Your task to perform on an android device: Open Maps and search for coffee Image 0: 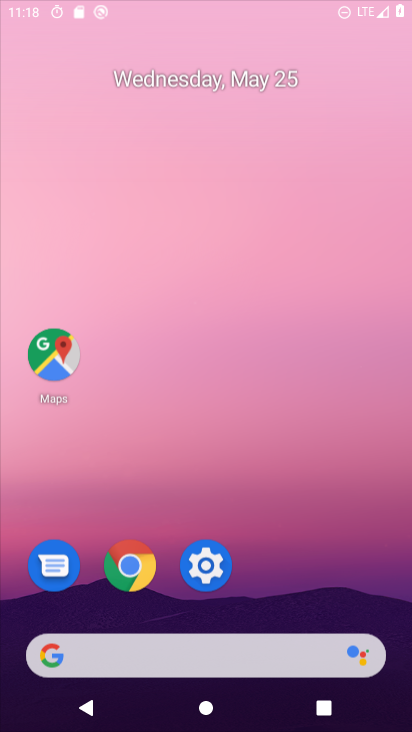
Step 0: drag from (305, 653) to (147, 166)
Your task to perform on an android device: Open Maps and search for coffee Image 1: 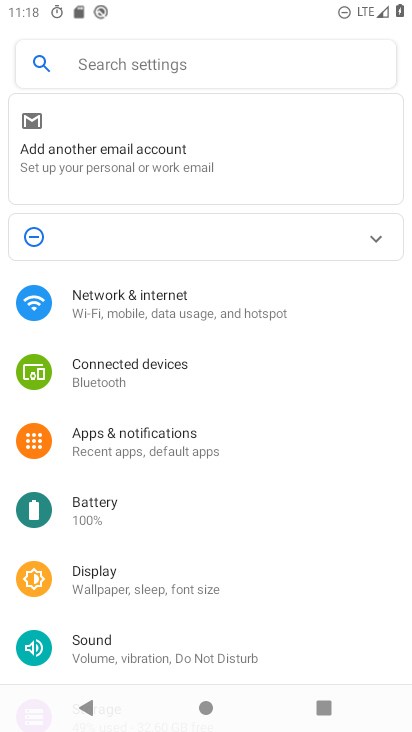
Step 1: press back button
Your task to perform on an android device: Open Maps and search for coffee Image 2: 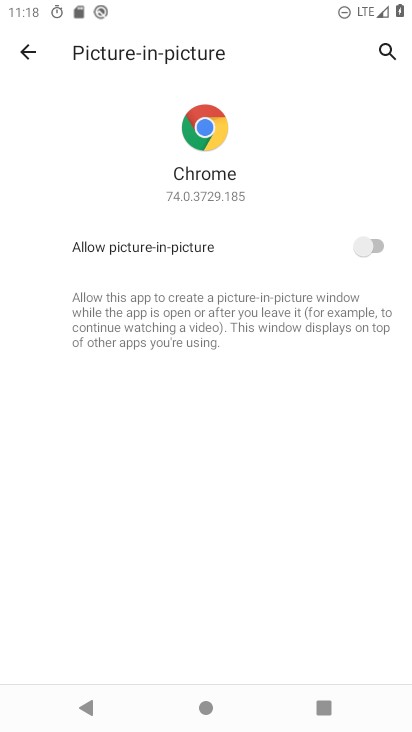
Step 2: click (30, 56)
Your task to perform on an android device: Open Maps and search for coffee Image 3: 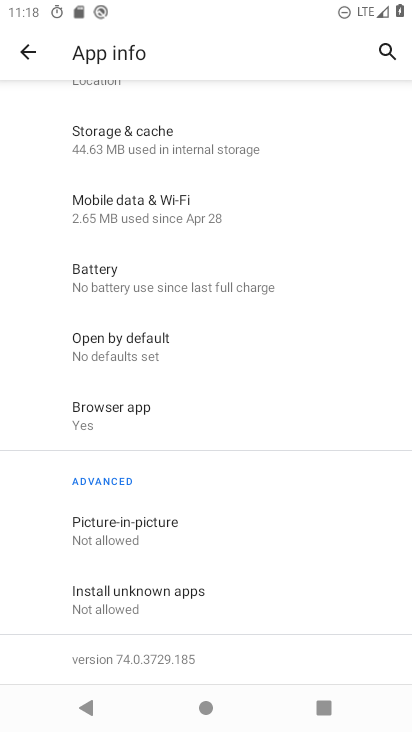
Step 3: drag from (256, 514) to (219, 149)
Your task to perform on an android device: Open Maps and search for coffee Image 4: 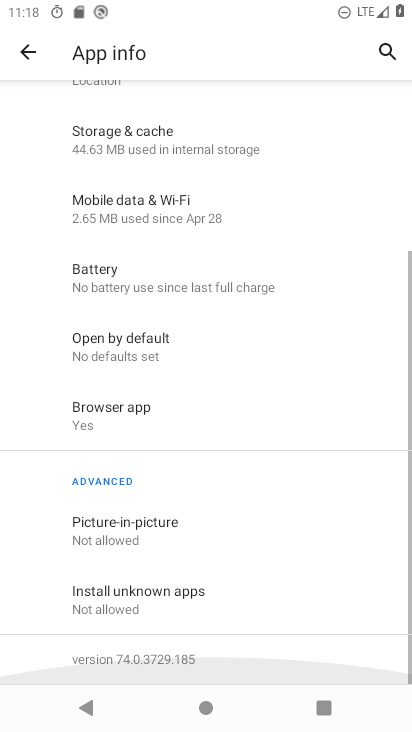
Step 4: drag from (291, 466) to (291, 186)
Your task to perform on an android device: Open Maps and search for coffee Image 5: 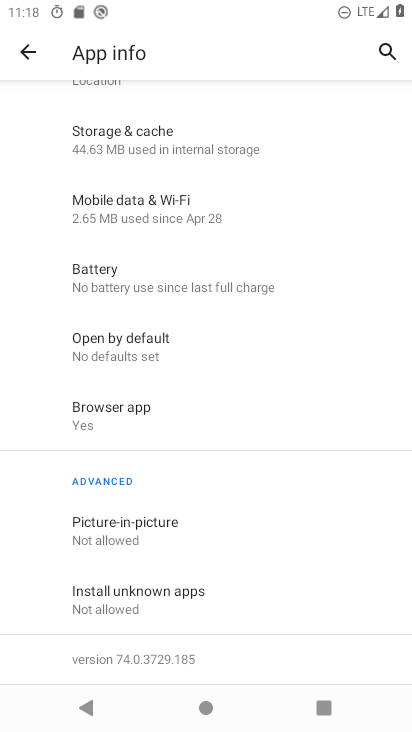
Step 5: press back button
Your task to perform on an android device: Open Maps and search for coffee Image 6: 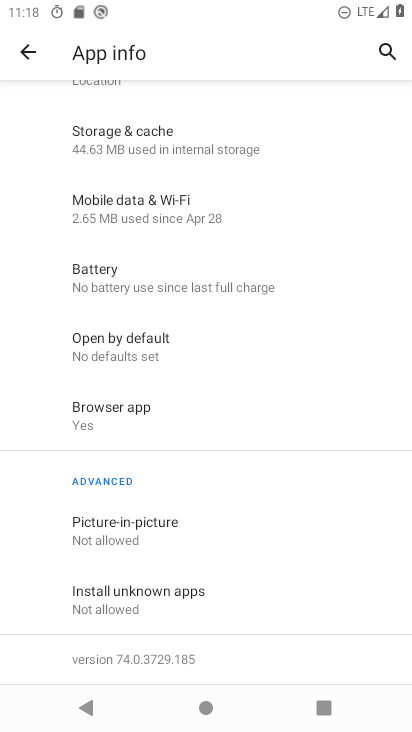
Step 6: press back button
Your task to perform on an android device: Open Maps and search for coffee Image 7: 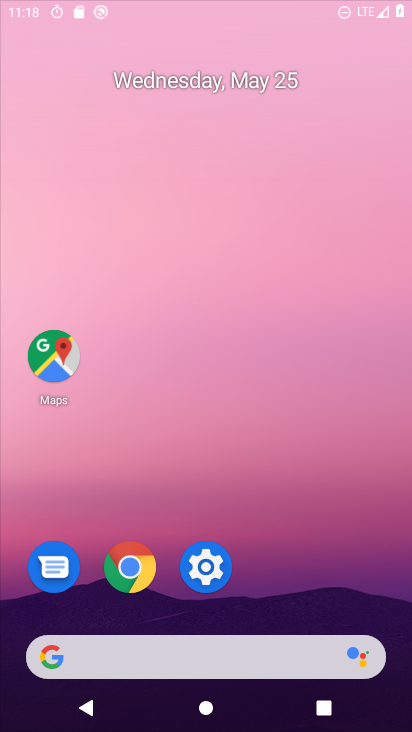
Step 7: press back button
Your task to perform on an android device: Open Maps and search for coffee Image 8: 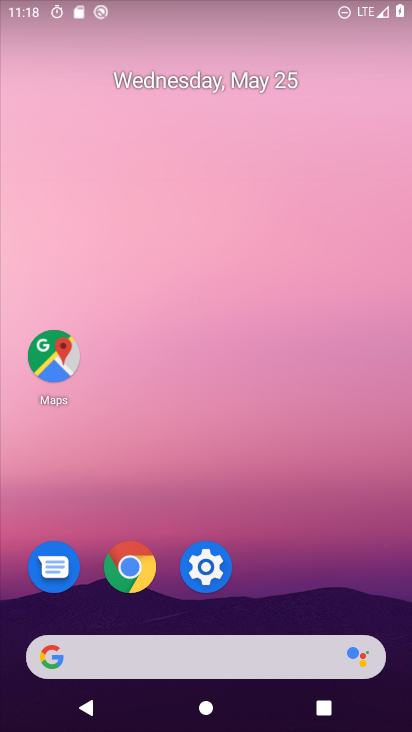
Step 8: drag from (275, 651) to (249, 81)
Your task to perform on an android device: Open Maps and search for coffee Image 9: 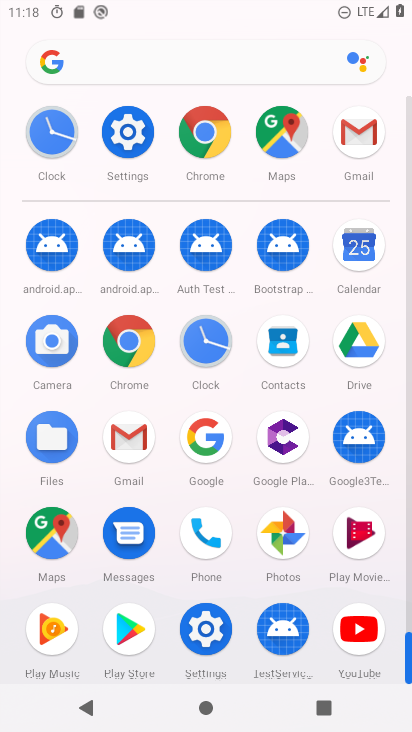
Step 9: click (287, 141)
Your task to perform on an android device: Open Maps and search for coffee Image 10: 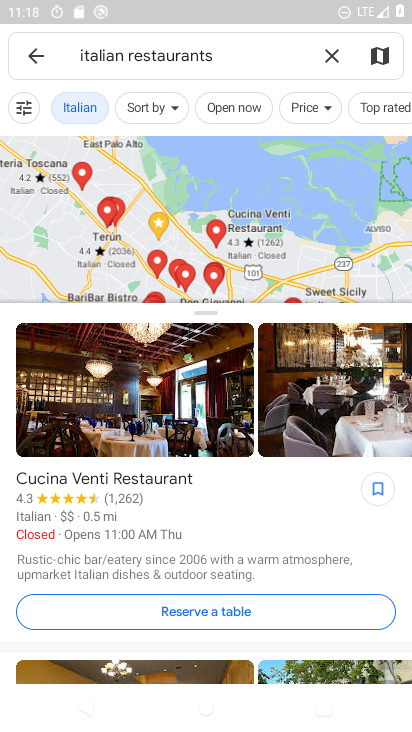
Step 10: click (323, 54)
Your task to perform on an android device: Open Maps and search for coffee Image 11: 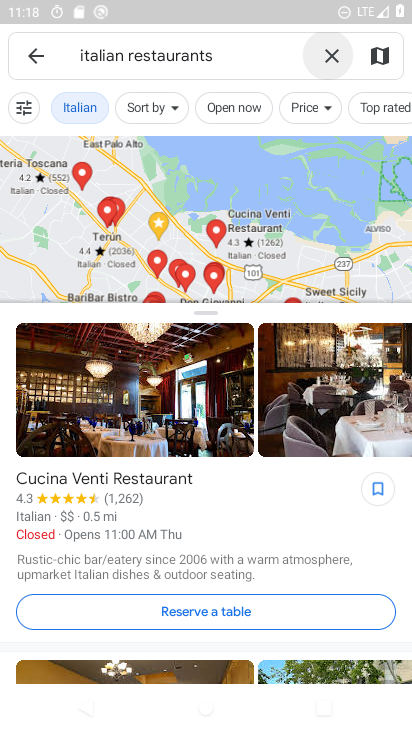
Step 11: click (323, 54)
Your task to perform on an android device: Open Maps and search for coffee Image 12: 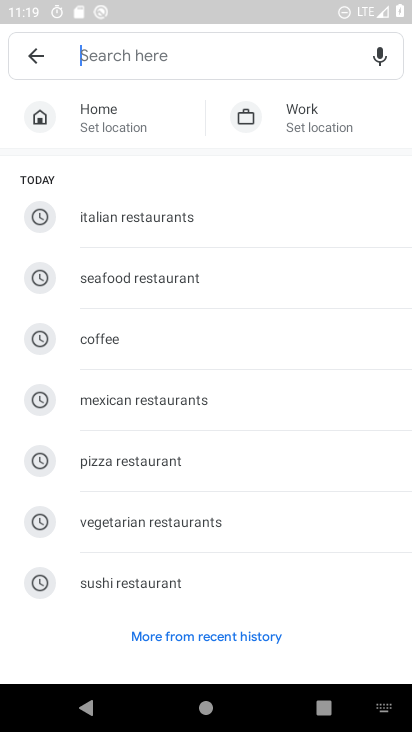
Step 12: click (94, 346)
Your task to perform on an android device: Open Maps and search for coffee Image 13: 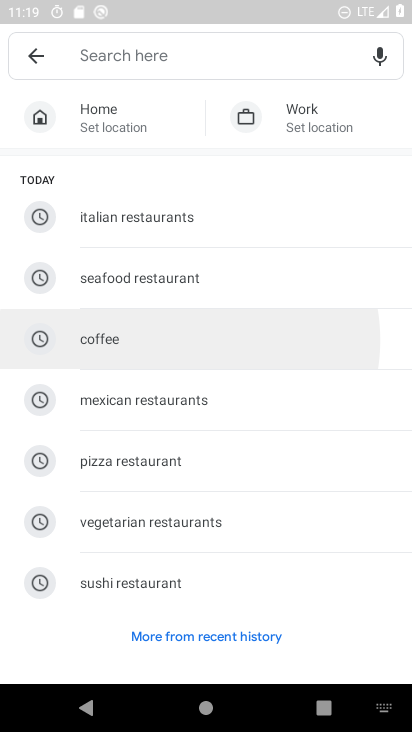
Step 13: click (94, 346)
Your task to perform on an android device: Open Maps and search for coffee Image 14: 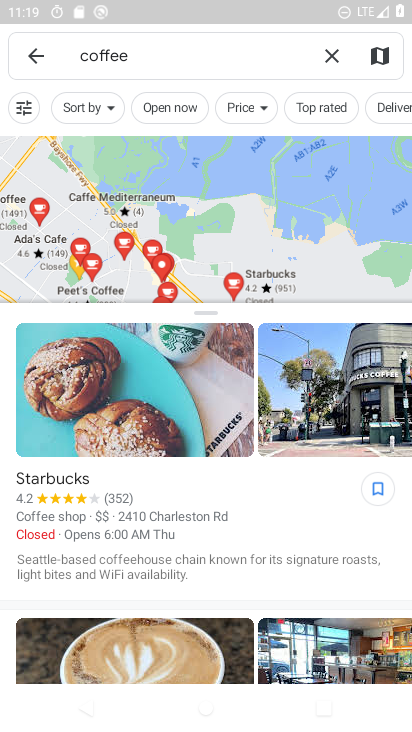
Step 14: task complete